Your task to perform on an android device: Is it going to rain this weekend? Image 0: 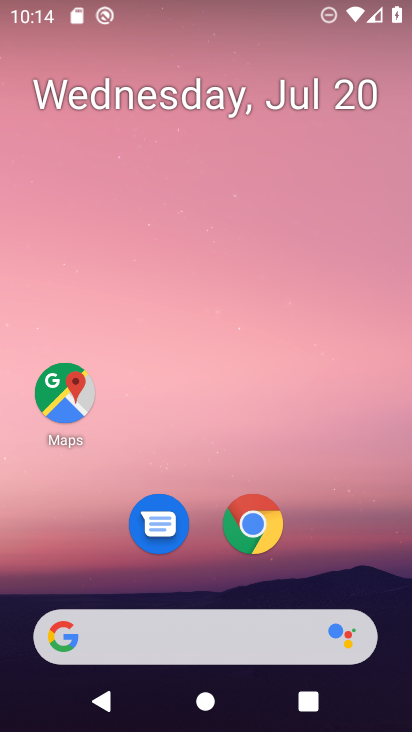
Step 0: click (142, 639)
Your task to perform on an android device: Is it going to rain this weekend? Image 1: 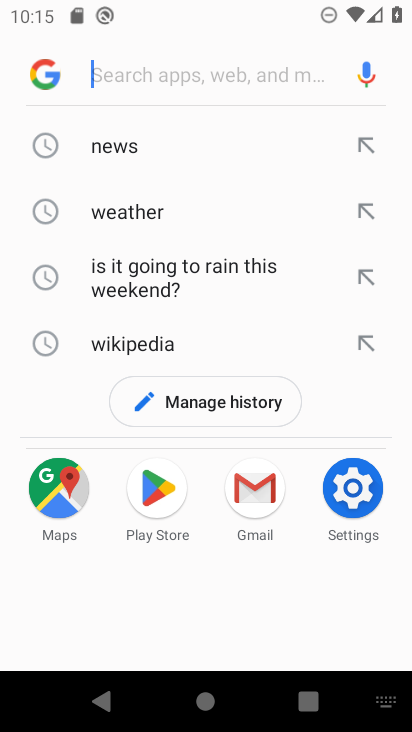
Step 1: click (145, 215)
Your task to perform on an android device: Is it going to rain this weekend? Image 2: 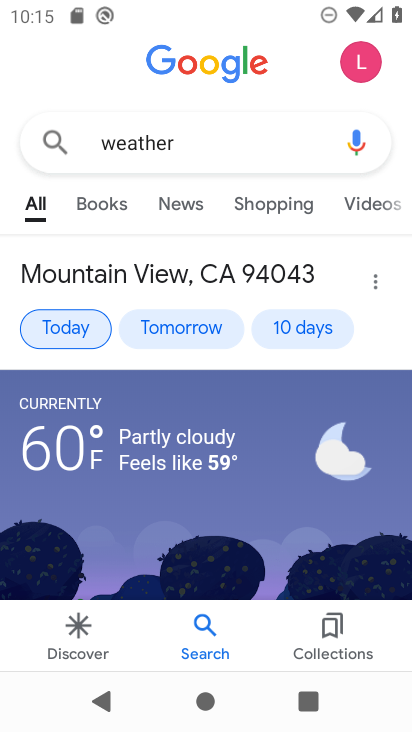
Step 2: click (292, 329)
Your task to perform on an android device: Is it going to rain this weekend? Image 3: 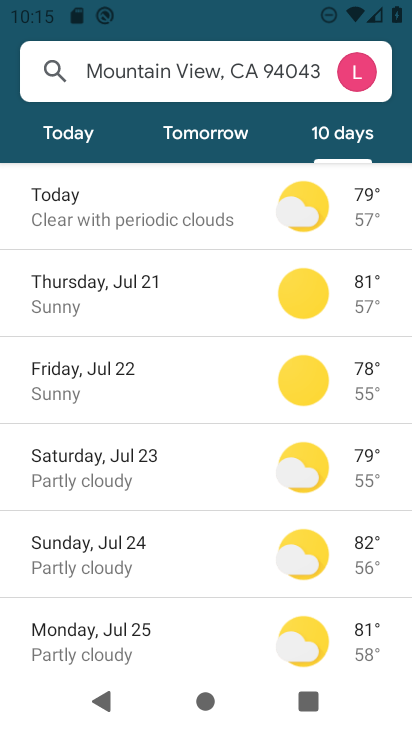
Step 3: click (113, 454)
Your task to perform on an android device: Is it going to rain this weekend? Image 4: 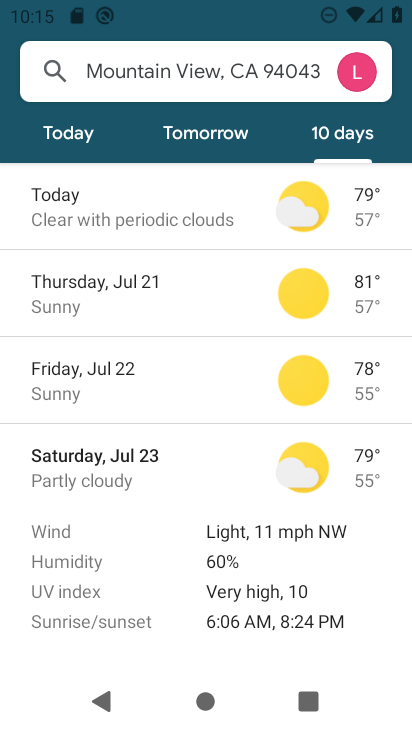
Step 4: task complete